Your task to perform on an android device: Is it going to rain tomorrow? Image 0: 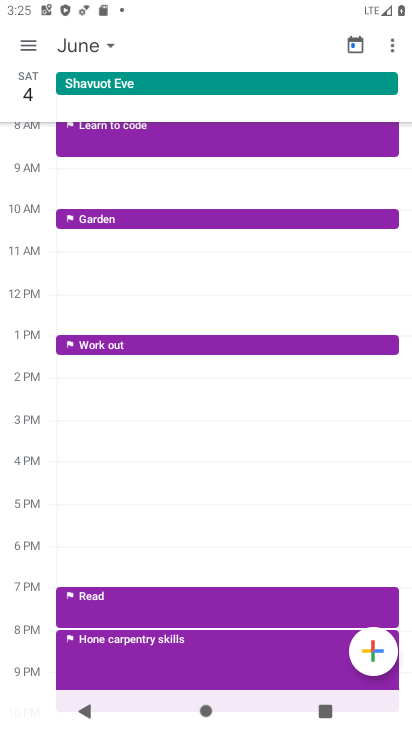
Step 0: press back button
Your task to perform on an android device: Is it going to rain tomorrow? Image 1: 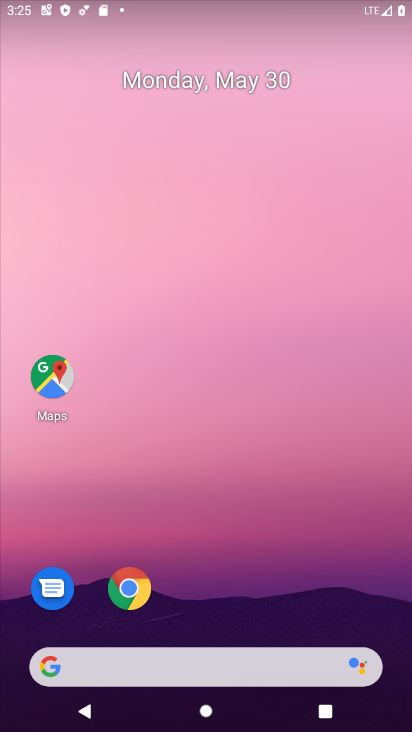
Step 1: drag from (230, 576) to (221, 44)
Your task to perform on an android device: Is it going to rain tomorrow? Image 2: 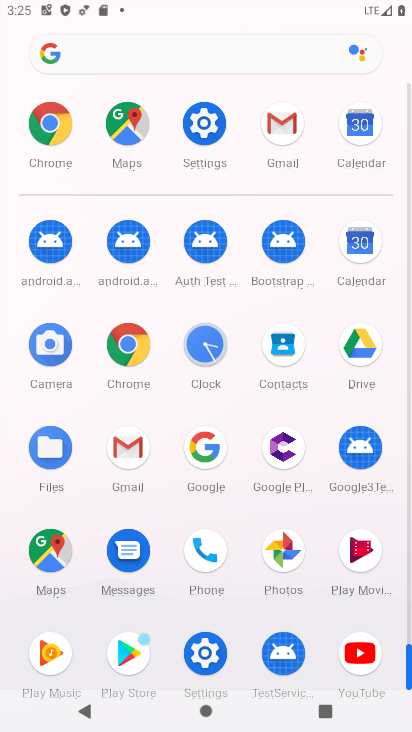
Step 2: drag from (9, 569) to (9, 179)
Your task to perform on an android device: Is it going to rain tomorrow? Image 3: 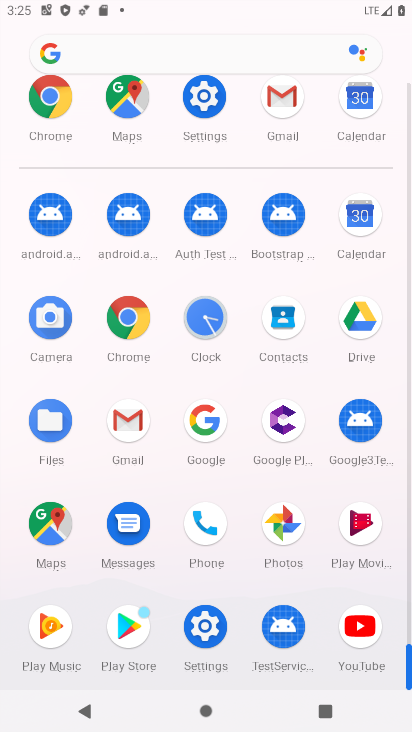
Step 3: click (129, 309)
Your task to perform on an android device: Is it going to rain tomorrow? Image 4: 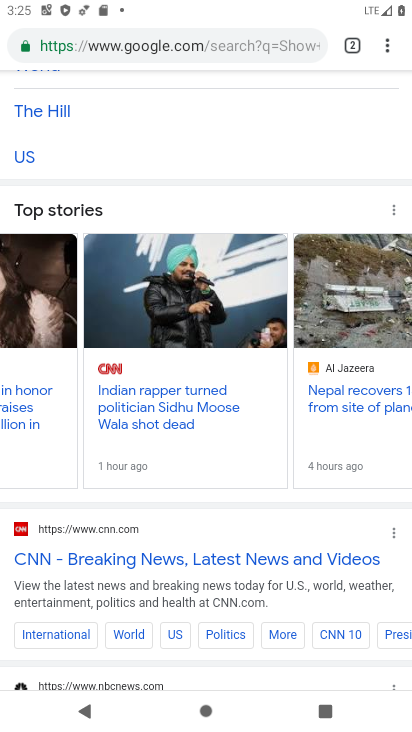
Step 4: click (192, 41)
Your task to perform on an android device: Is it going to rain tomorrow? Image 5: 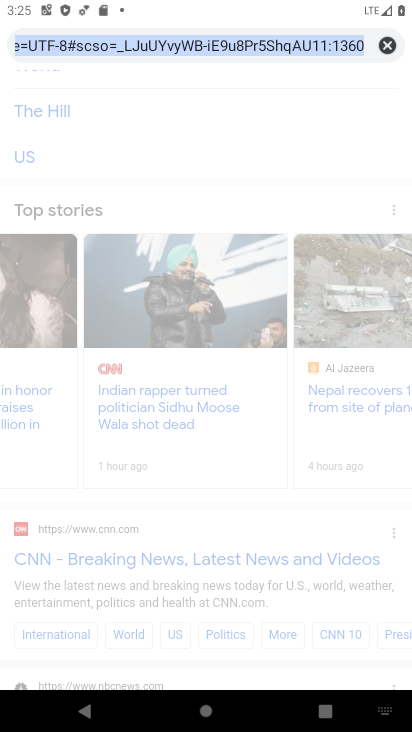
Step 5: click (386, 40)
Your task to perform on an android device: Is it going to rain tomorrow? Image 6: 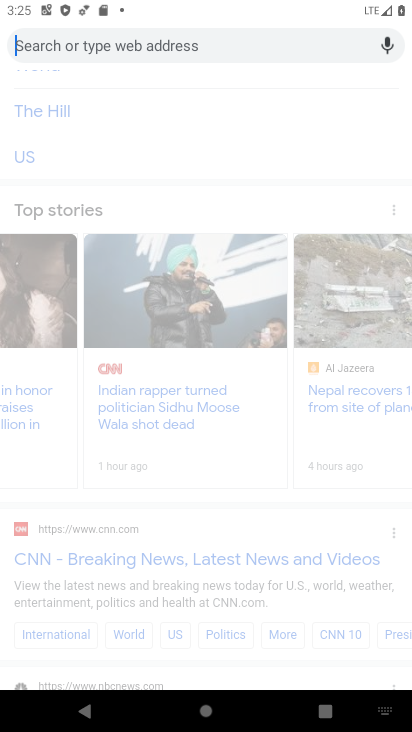
Step 6: type "Is it going to rain tomorrow?"
Your task to perform on an android device: Is it going to rain tomorrow? Image 7: 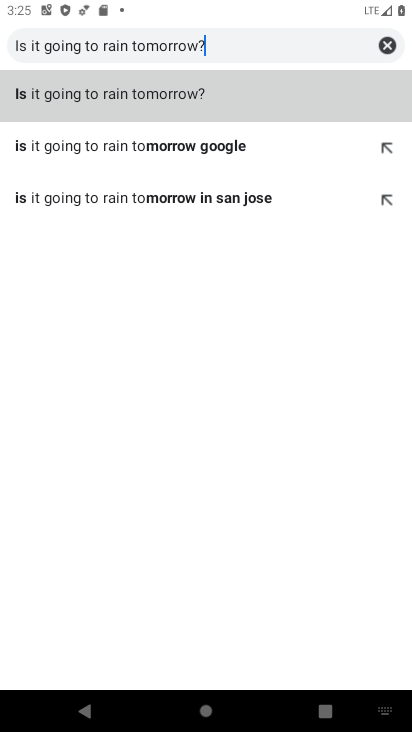
Step 7: click (85, 98)
Your task to perform on an android device: Is it going to rain tomorrow? Image 8: 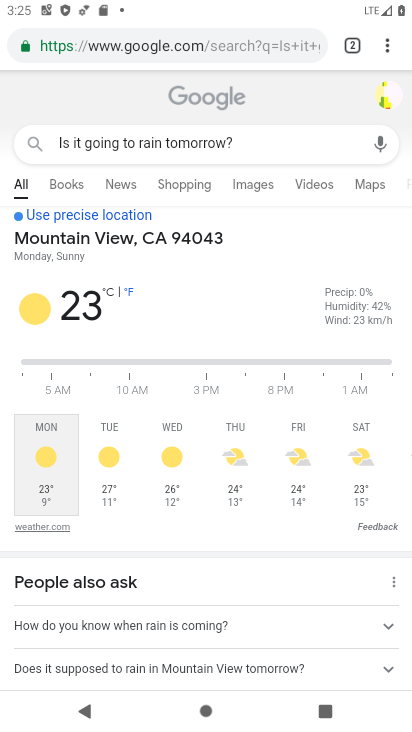
Step 8: task complete